Your task to perform on an android device: turn on airplane mode Image 0: 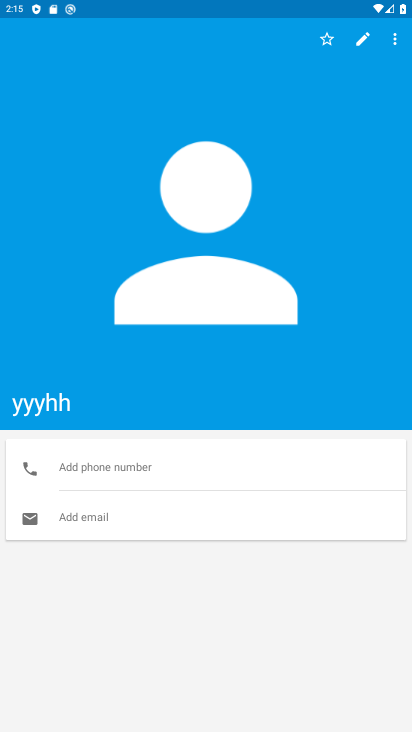
Step 0: press home button
Your task to perform on an android device: turn on airplane mode Image 1: 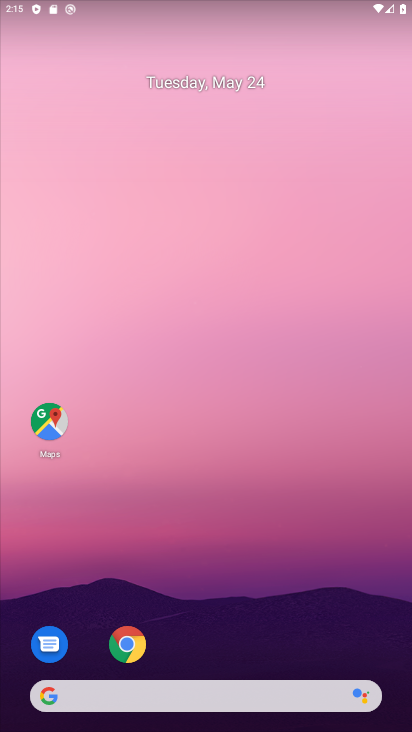
Step 1: drag from (244, 609) to (206, 34)
Your task to perform on an android device: turn on airplane mode Image 2: 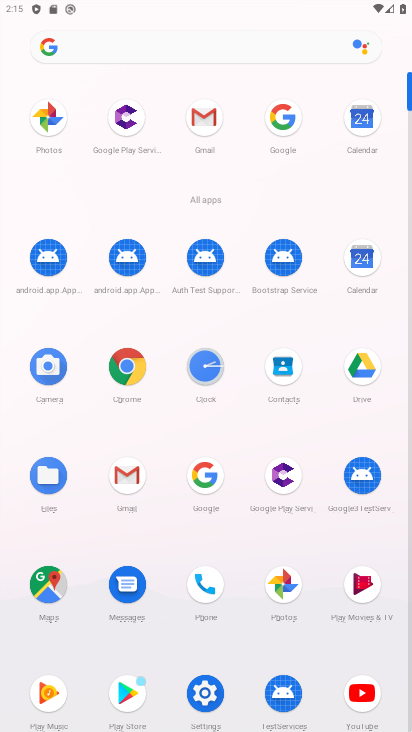
Step 2: click (212, 686)
Your task to perform on an android device: turn on airplane mode Image 3: 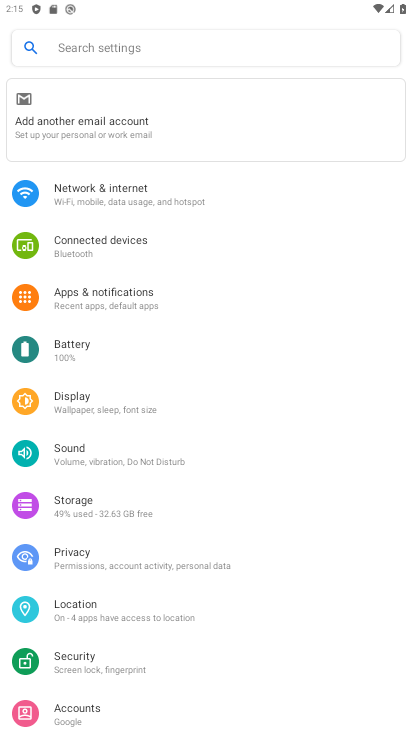
Step 3: click (144, 192)
Your task to perform on an android device: turn on airplane mode Image 4: 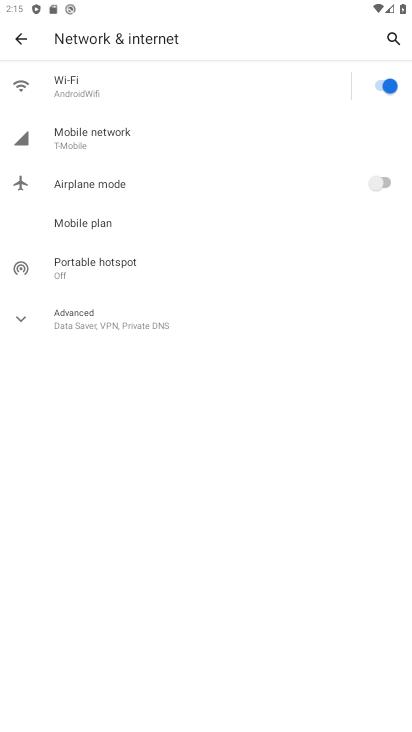
Step 4: click (377, 185)
Your task to perform on an android device: turn on airplane mode Image 5: 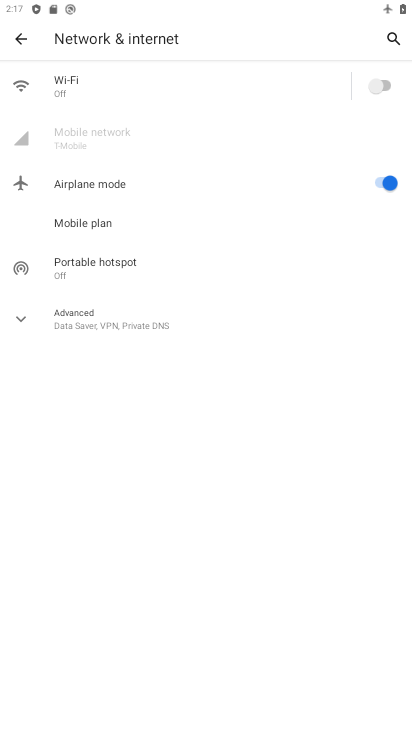
Step 5: task complete